Your task to perform on an android device: open app "Viber Messenger" (install if not already installed) and enter user name: "blameless@icloud.com" and password: "Yoknapatawpha" Image 0: 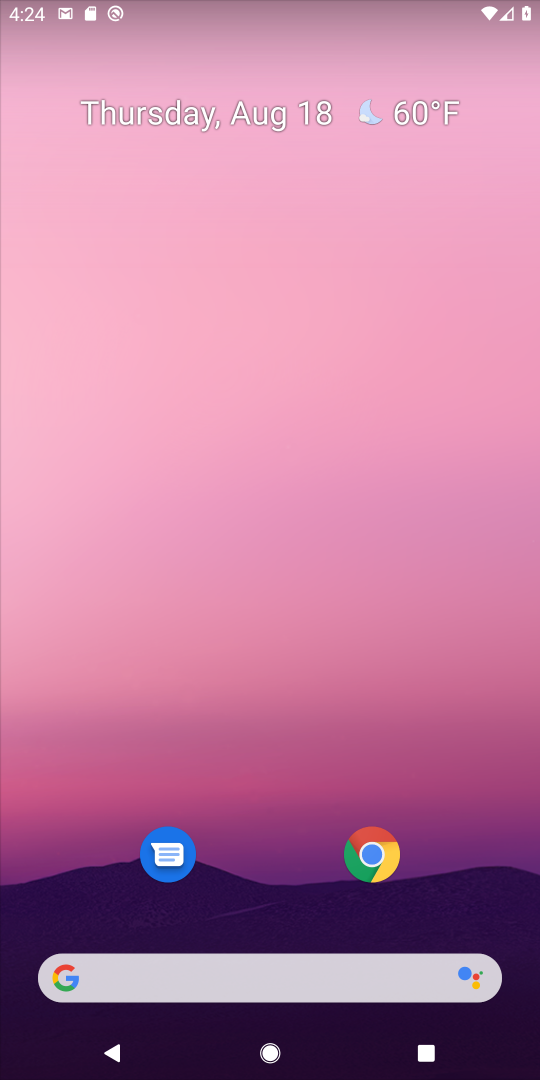
Step 0: drag from (282, 624) to (461, 75)
Your task to perform on an android device: open app "Viber Messenger" (install if not already installed) and enter user name: "blameless@icloud.com" and password: "Yoknapatawpha" Image 1: 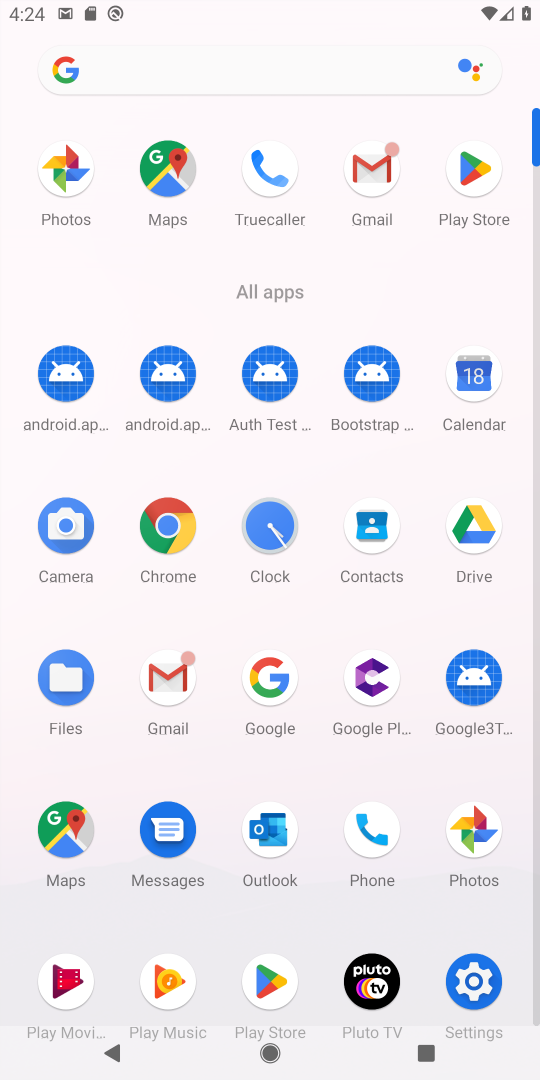
Step 1: press home button
Your task to perform on an android device: open app "Viber Messenger" (install if not already installed) and enter user name: "blameless@icloud.com" and password: "Yoknapatawpha" Image 2: 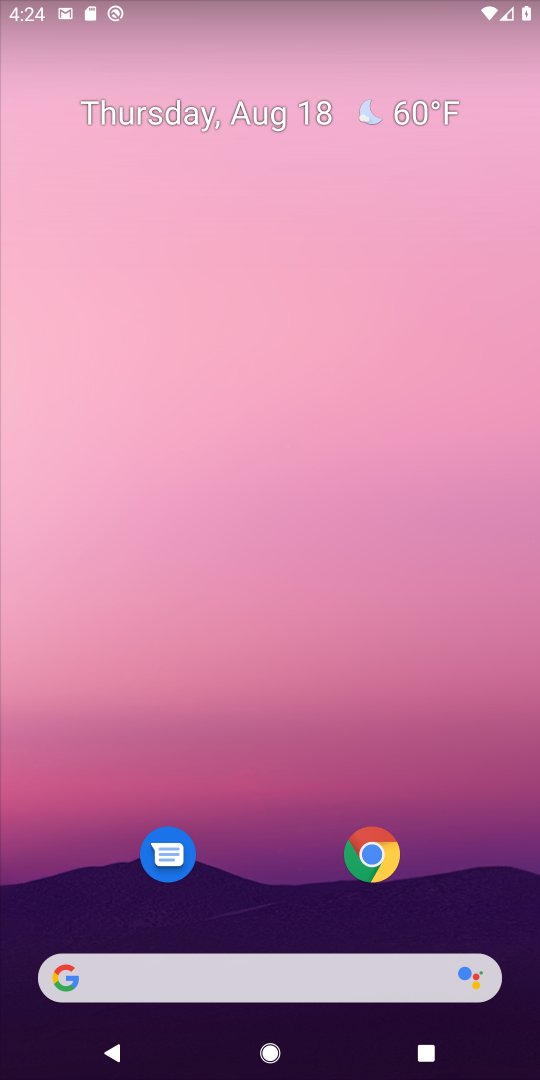
Step 2: drag from (262, 886) to (290, 167)
Your task to perform on an android device: open app "Viber Messenger" (install if not already installed) and enter user name: "blameless@icloud.com" and password: "Yoknapatawpha" Image 3: 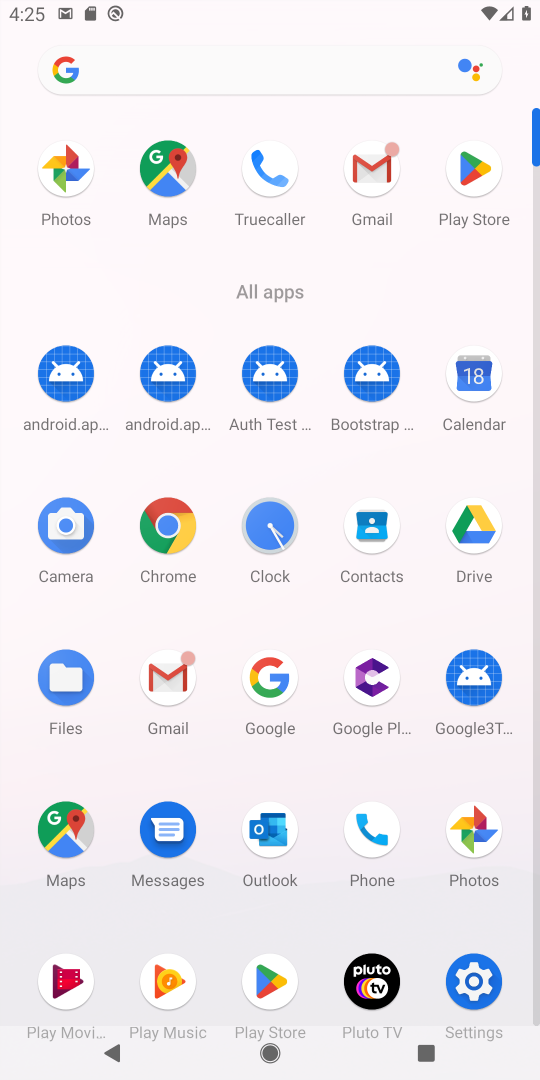
Step 3: click (472, 165)
Your task to perform on an android device: open app "Viber Messenger" (install if not already installed) and enter user name: "blameless@icloud.com" and password: "Yoknapatawpha" Image 4: 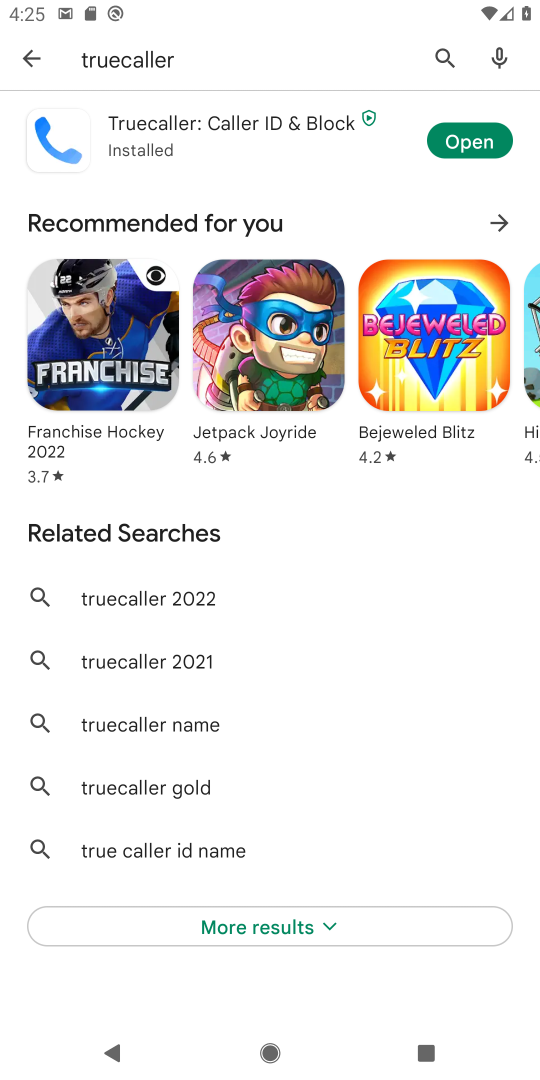
Step 4: click (33, 61)
Your task to perform on an android device: open app "Viber Messenger" (install if not already installed) and enter user name: "blameless@icloud.com" and password: "Yoknapatawpha" Image 5: 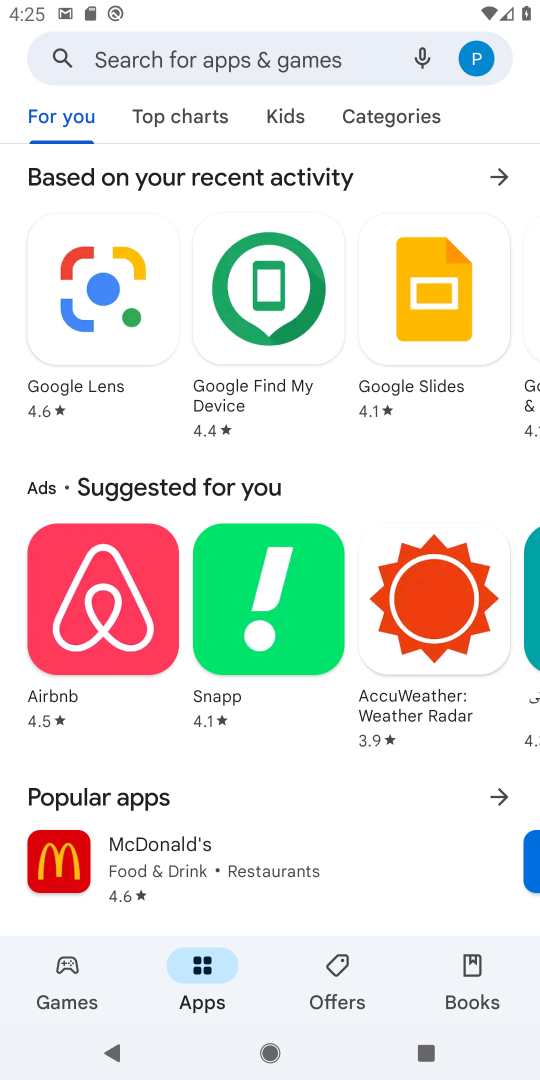
Step 5: click (200, 50)
Your task to perform on an android device: open app "Viber Messenger" (install if not already installed) and enter user name: "blameless@icloud.com" and password: "Yoknapatawpha" Image 6: 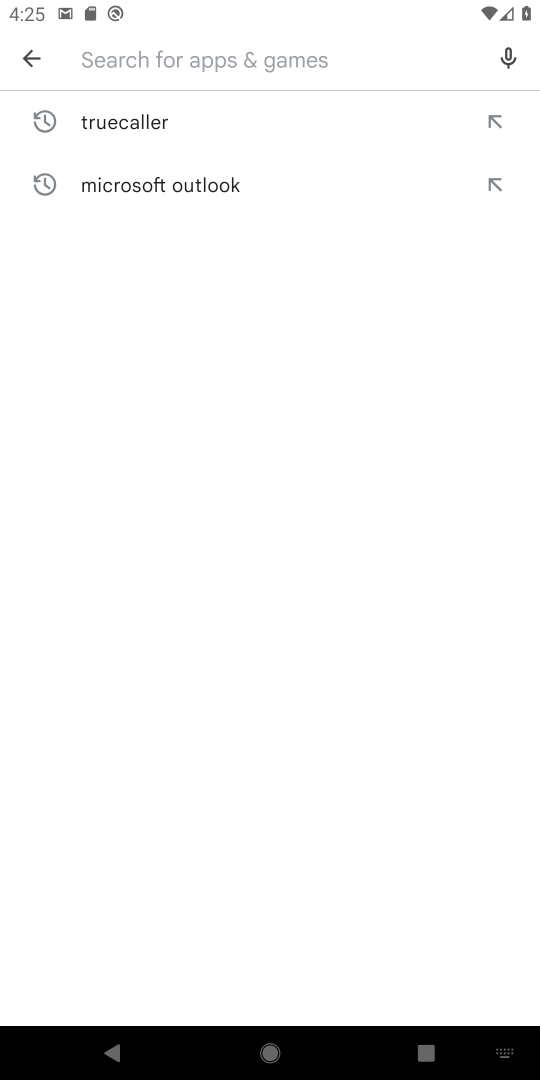
Step 6: type "Viber Messenger"
Your task to perform on an android device: open app "Viber Messenger" (install if not already installed) and enter user name: "blameless@icloud.com" and password: "Yoknapatawpha" Image 7: 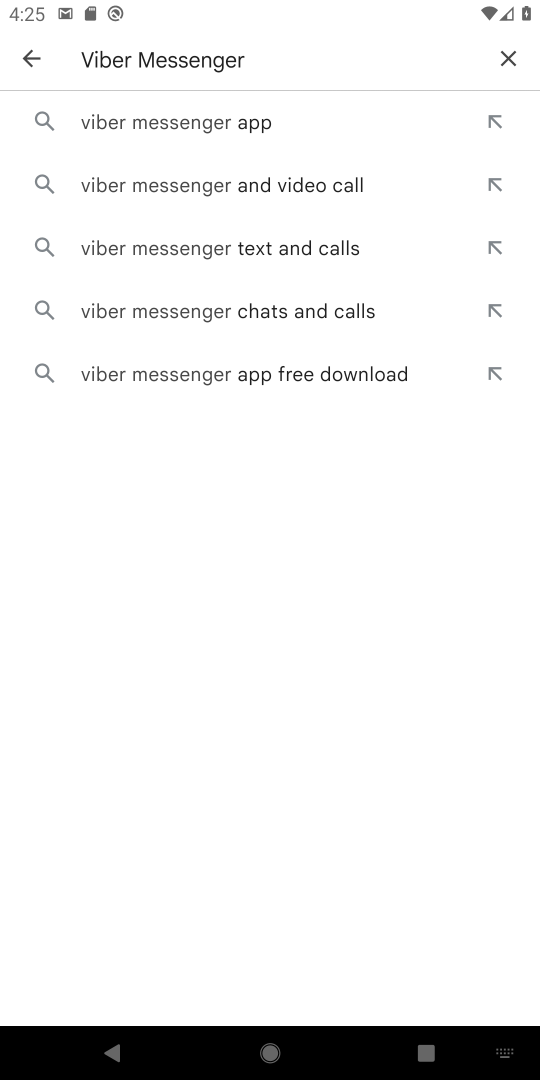
Step 7: click (128, 118)
Your task to perform on an android device: open app "Viber Messenger" (install if not already installed) and enter user name: "blameless@icloud.com" and password: "Yoknapatawpha" Image 8: 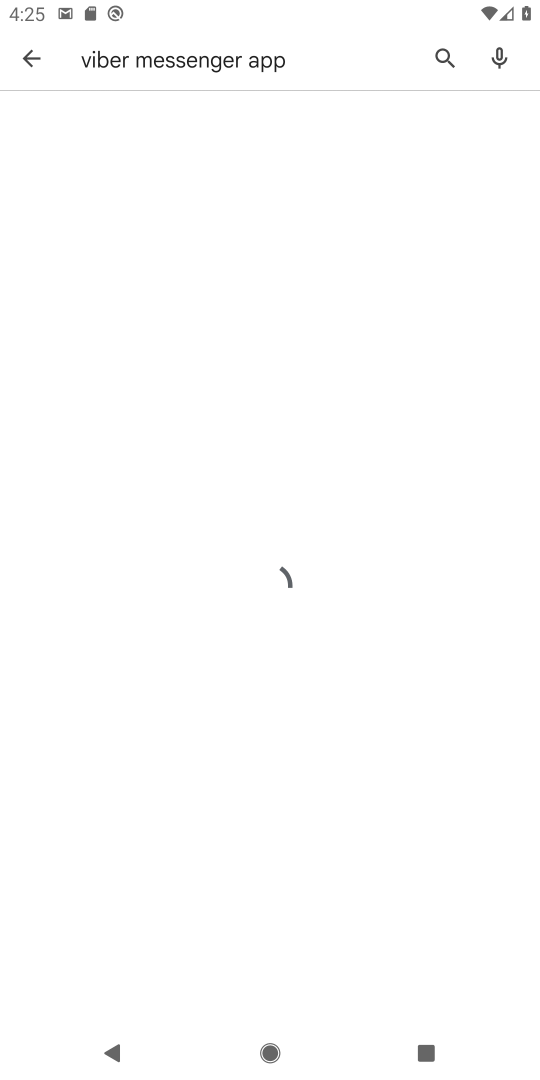
Step 8: click (230, 123)
Your task to perform on an android device: open app "Viber Messenger" (install if not already installed) and enter user name: "blameless@icloud.com" and password: "Yoknapatawpha" Image 9: 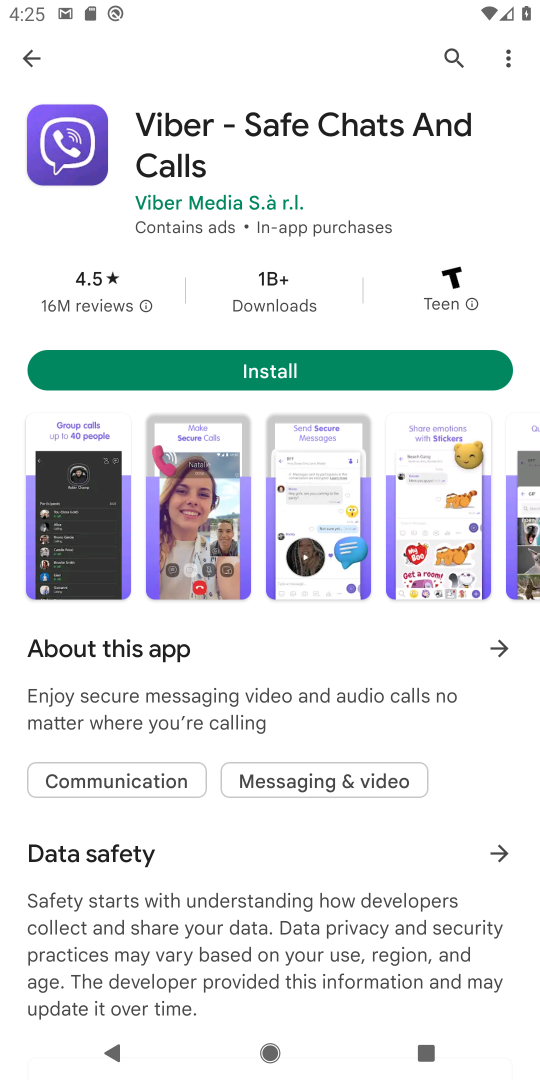
Step 9: click (257, 362)
Your task to perform on an android device: open app "Viber Messenger" (install if not already installed) and enter user name: "blameless@icloud.com" and password: "Yoknapatawpha" Image 10: 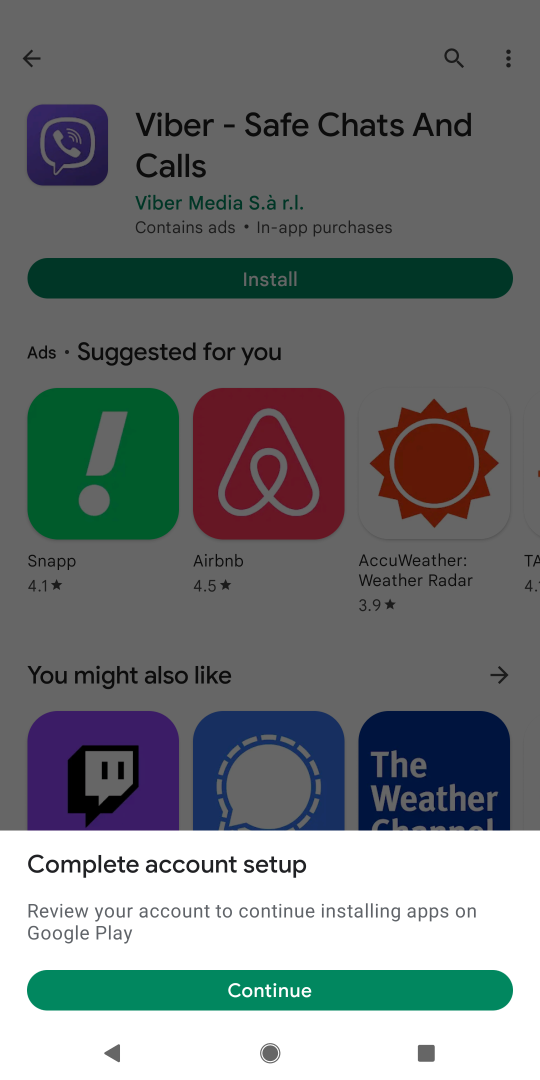
Step 10: click (267, 285)
Your task to perform on an android device: open app "Viber Messenger" (install if not already installed) and enter user name: "blameless@icloud.com" and password: "Yoknapatawpha" Image 11: 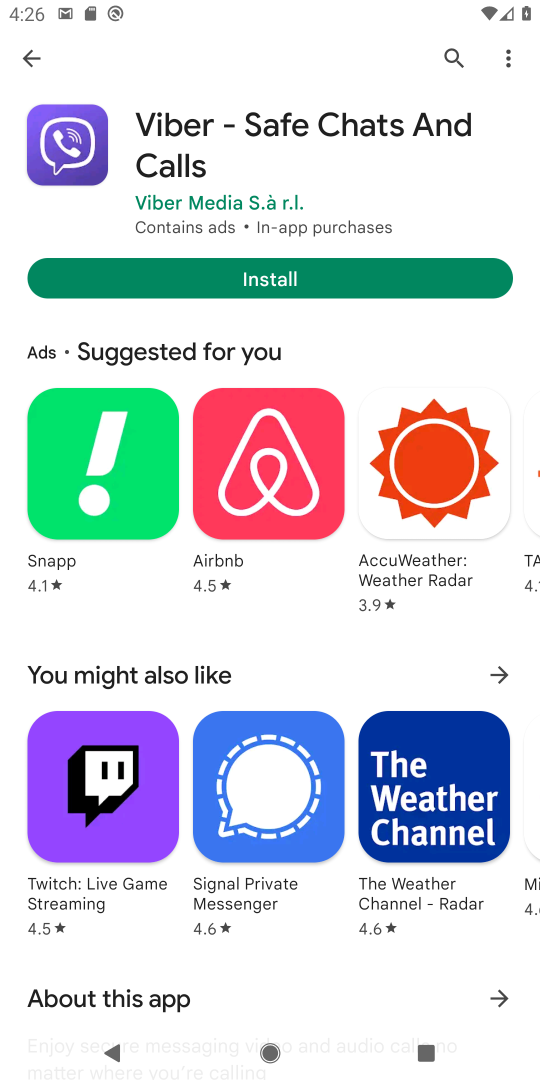
Step 11: click (288, 284)
Your task to perform on an android device: open app "Viber Messenger" (install if not already installed) and enter user name: "blameless@icloud.com" and password: "Yoknapatawpha" Image 12: 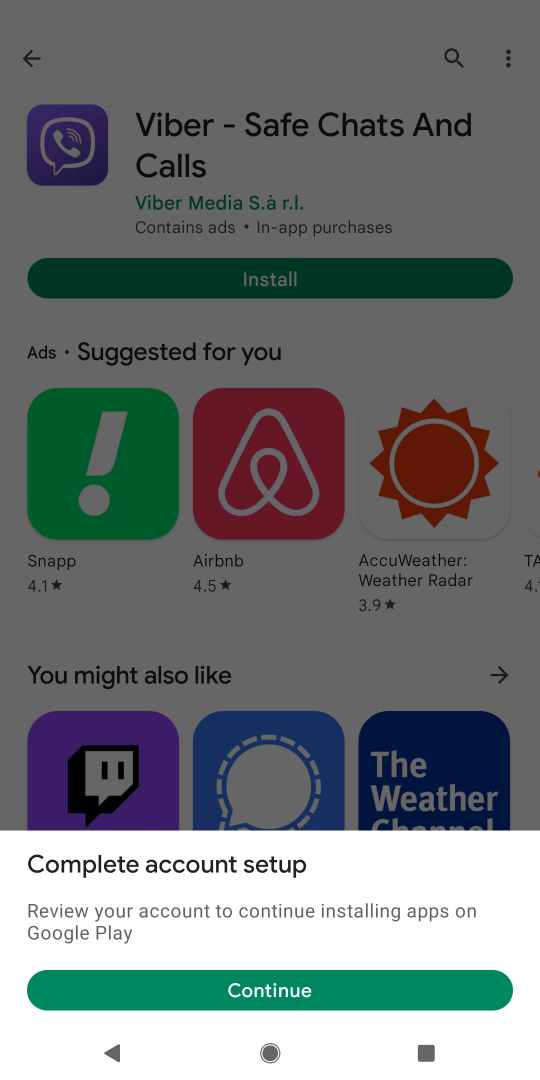
Step 12: click (256, 992)
Your task to perform on an android device: open app "Viber Messenger" (install if not already installed) and enter user name: "blameless@icloud.com" and password: "Yoknapatawpha" Image 13: 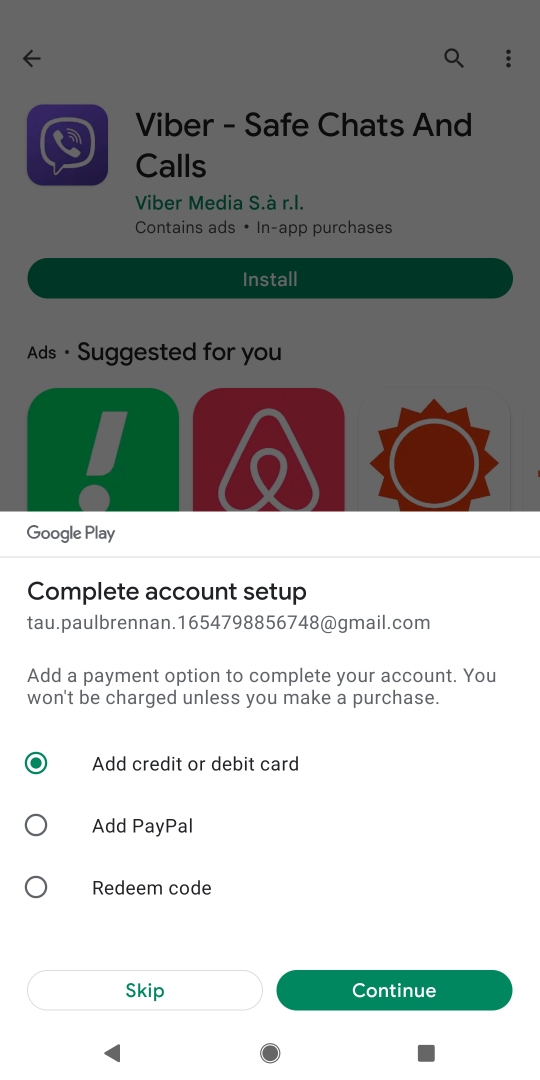
Step 13: click (138, 993)
Your task to perform on an android device: open app "Viber Messenger" (install if not already installed) and enter user name: "blameless@icloud.com" and password: "Yoknapatawpha" Image 14: 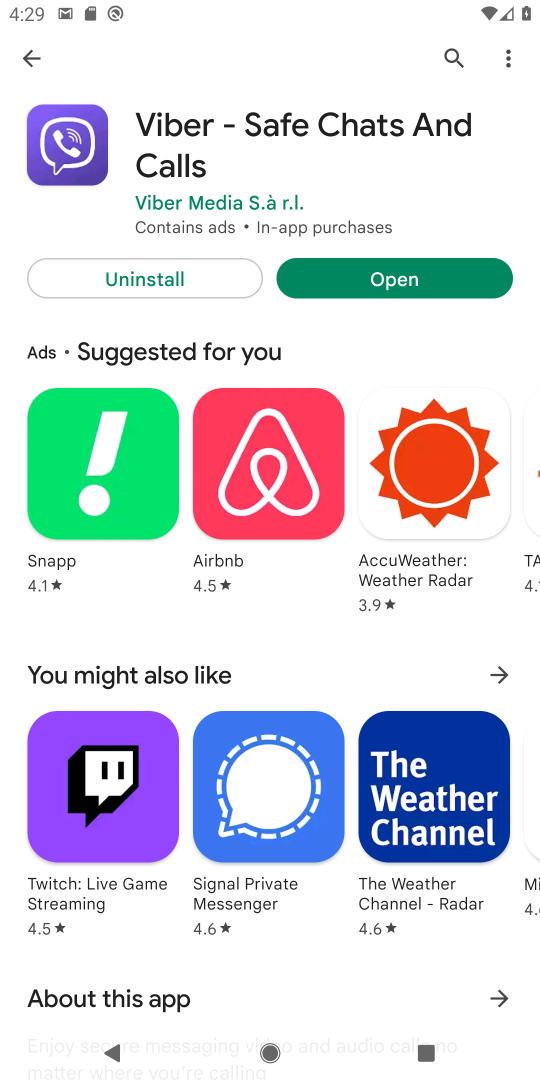
Step 14: click (397, 268)
Your task to perform on an android device: open app "Viber Messenger" (install if not already installed) and enter user name: "blameless@icloud.com" and password: "Yoknapatawpha" Image 15: 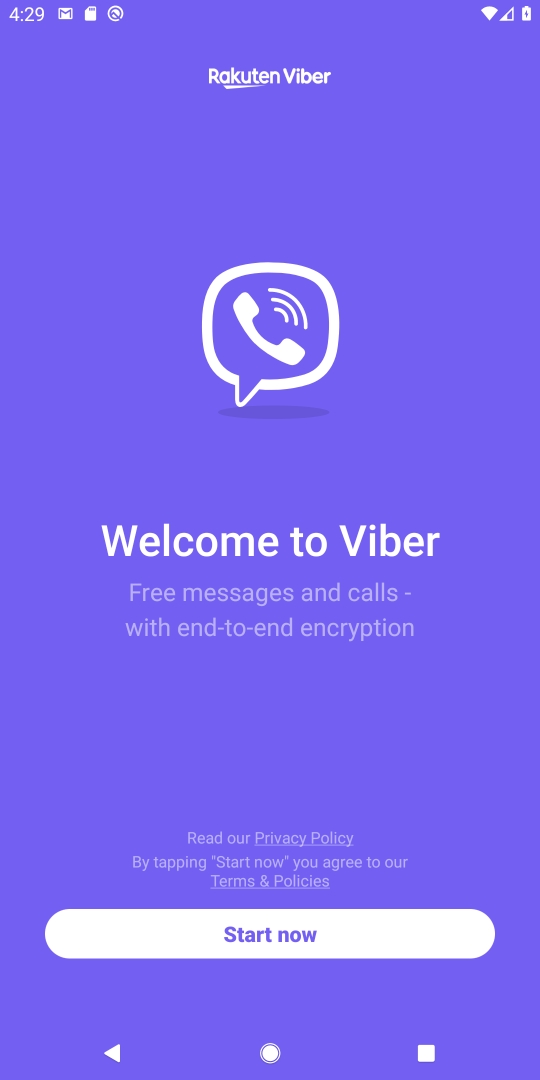
Step 15: task complete